Your task to perform on an android device: set an alarm Image 0: 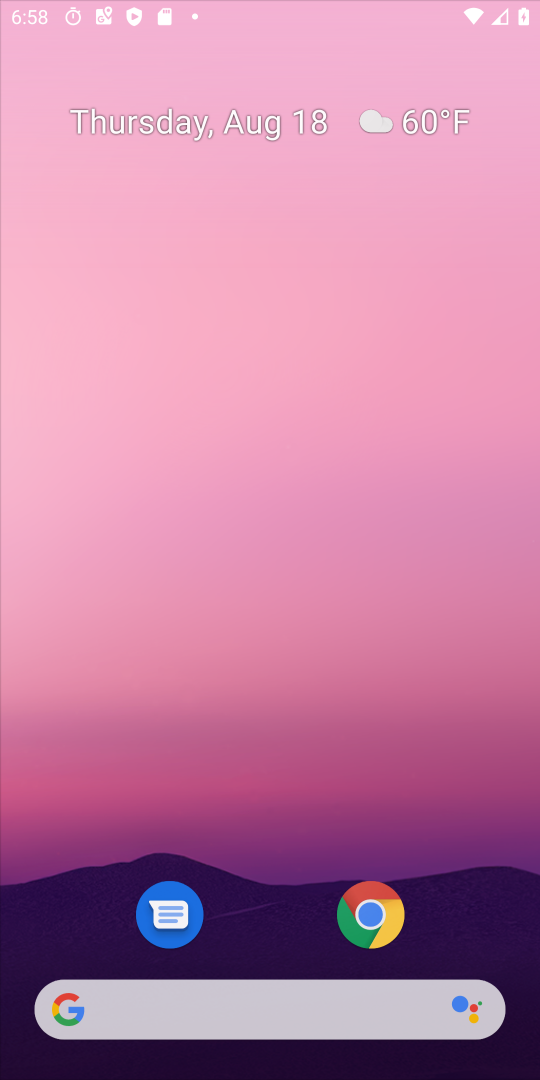
Step 0: press home button
Your task to perform on an android device: set an alarm Image 1: 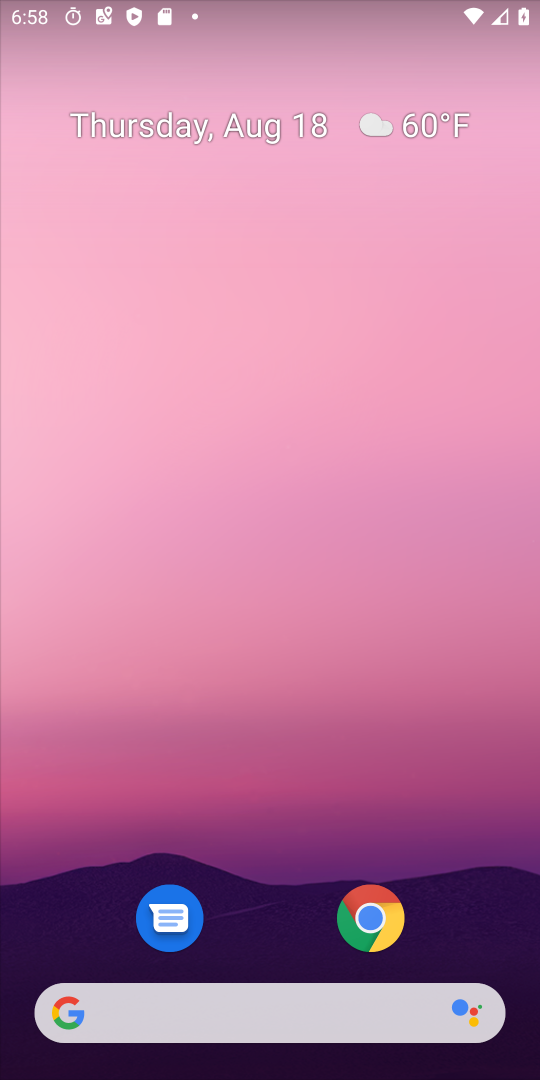
Step 1: drag from (278, 940) to (240, 123)
Your task to perform on an android device: set an alarm Image 2: 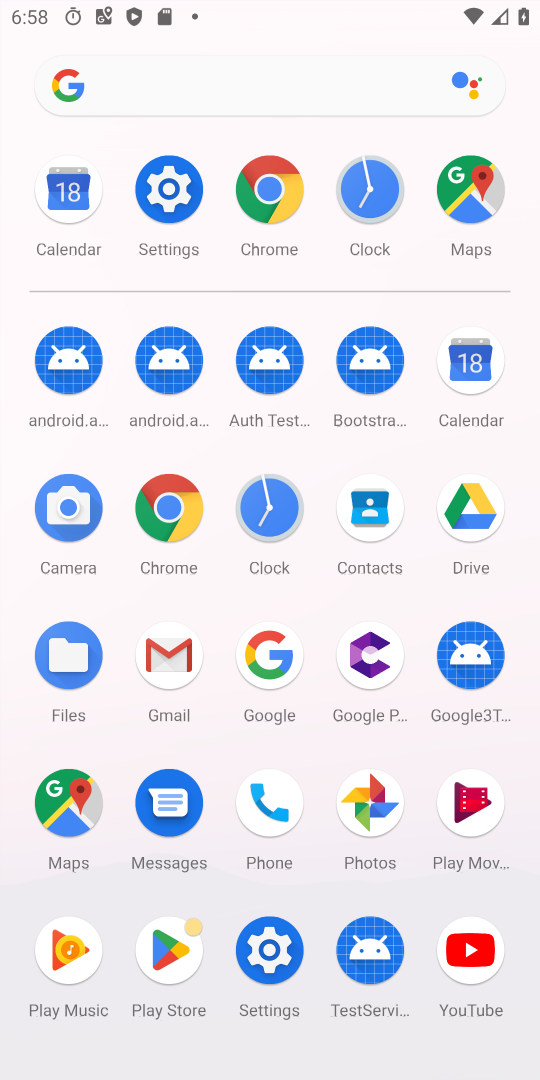
Step 2: click (363, 187)
Your task to perform on an android device: set an alarm Image 3: 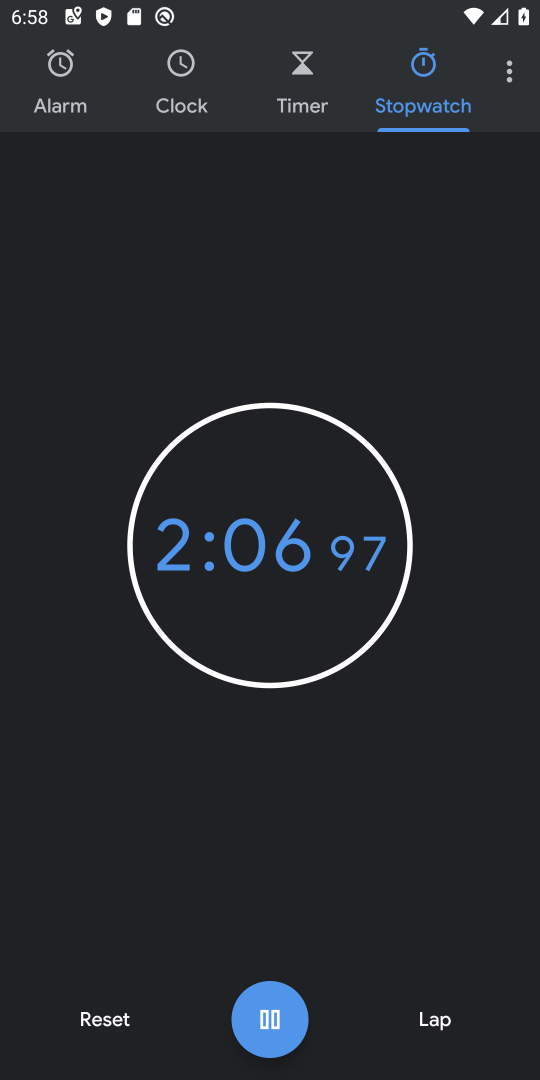
Step 3: click (60, 70)
Your task to perform on an android device: set an alarm Image 4: 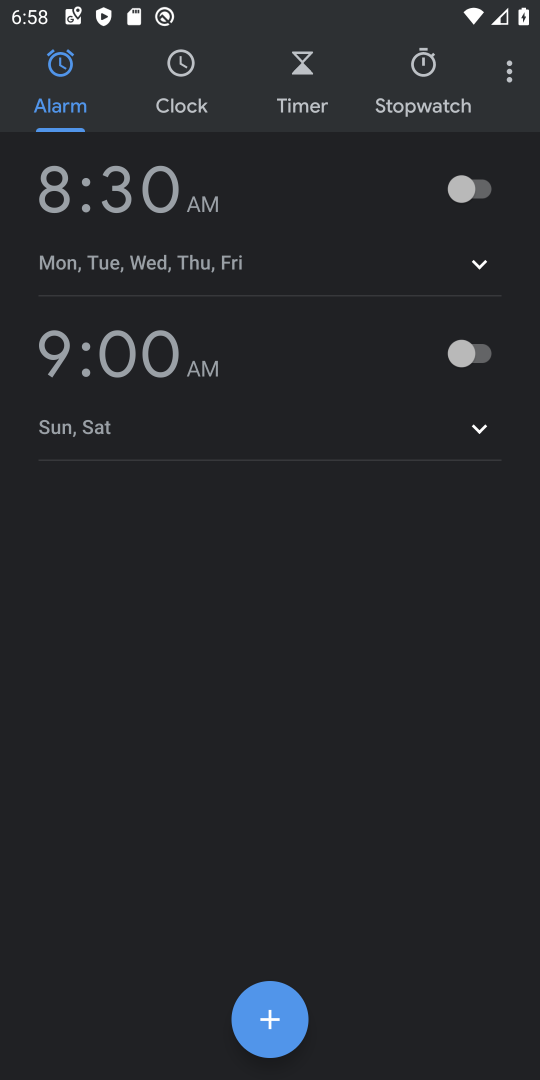
Step 4: click (455, 192)
Your task to perform on an android device: set an alarm Image 5: 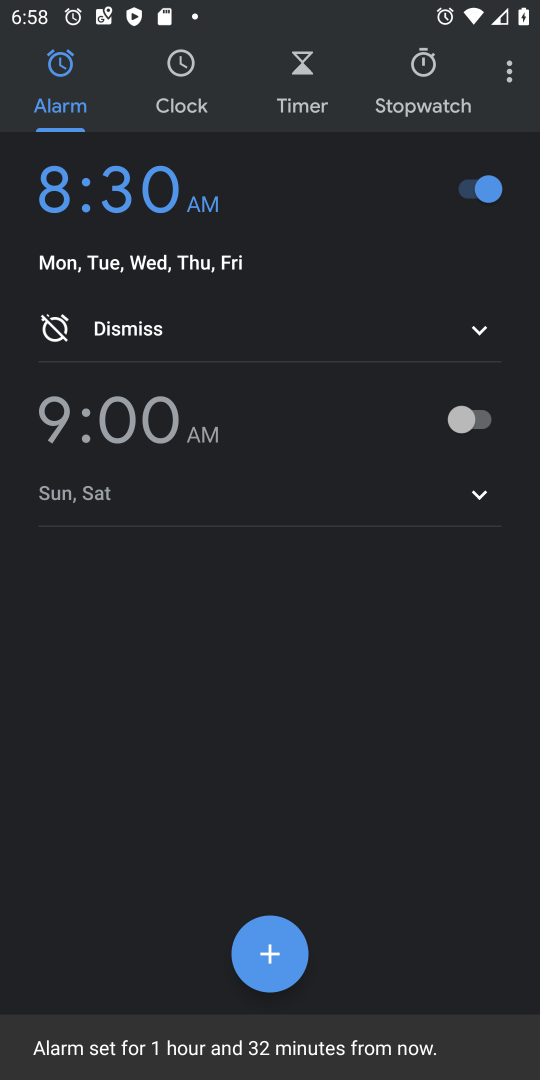
Step 5: task complete